Your task to perform on an android device: Go to Reddit.com Image 0: 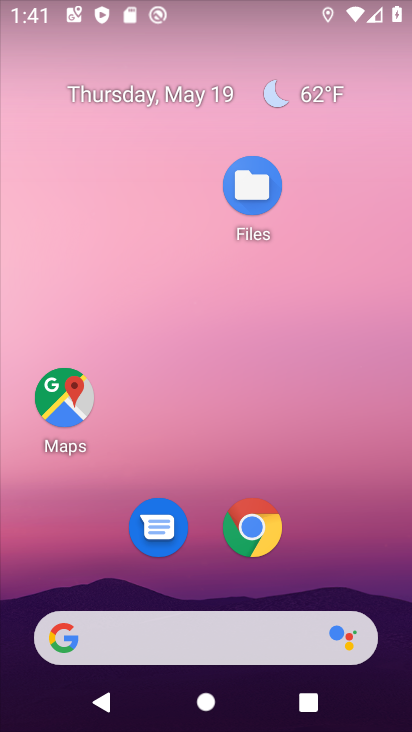
Step 0: drag from (379, 510) to (361, 94)
Your task to perform on an android device: Go to Reddit.com Image 1: 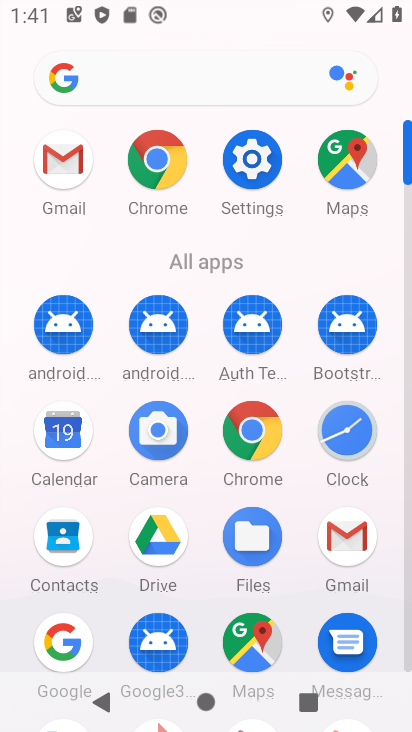
Step 1: click (242, 449)
Your task to perform on an android device: Go to Reddit.com Image 2: 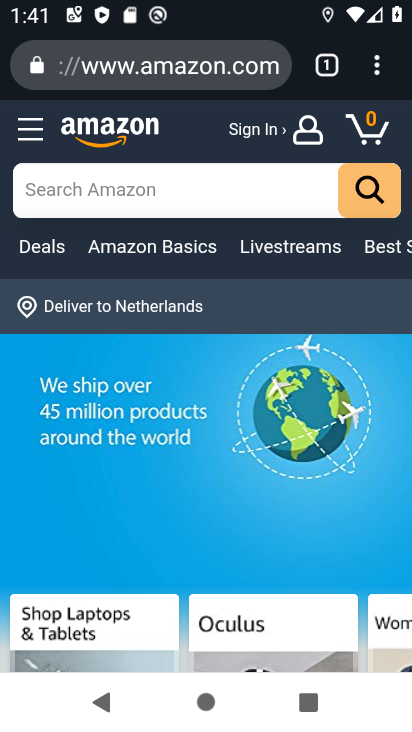
Step 2: click (150, 66)
Your task to perform on an android device: Go to Reddit.com Image 3: 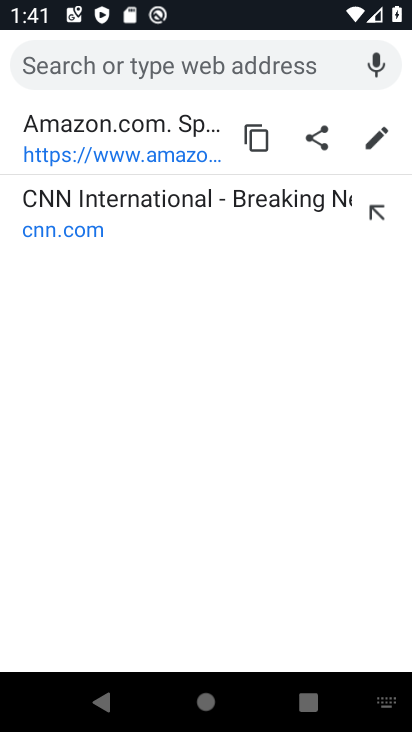
Step 3: type "reddit.com"
Your task to perform on an android device: Go to Reddit.com Image 4: 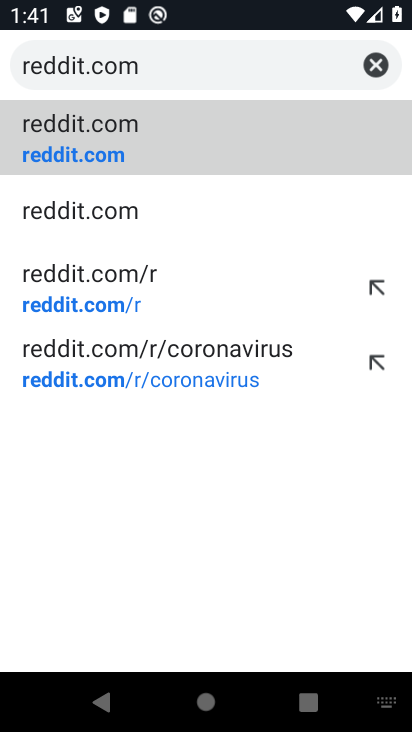
Step 4: click (88, 137)
Your task to perform on an android device: Go to Reddit.com Image 5: 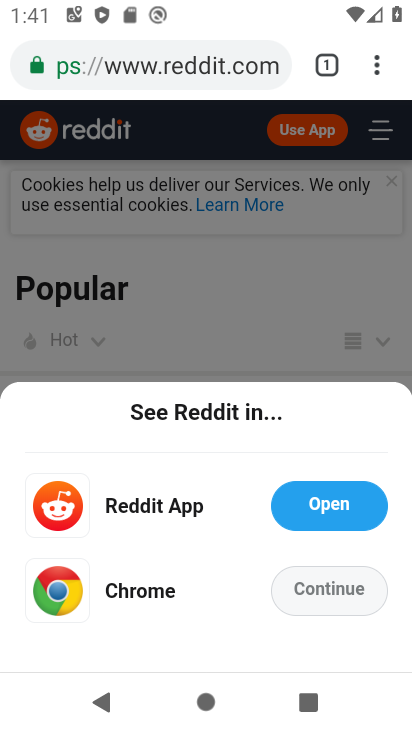
Step 5: task complete